Your task to perform on an android device: add a contact Image 0: 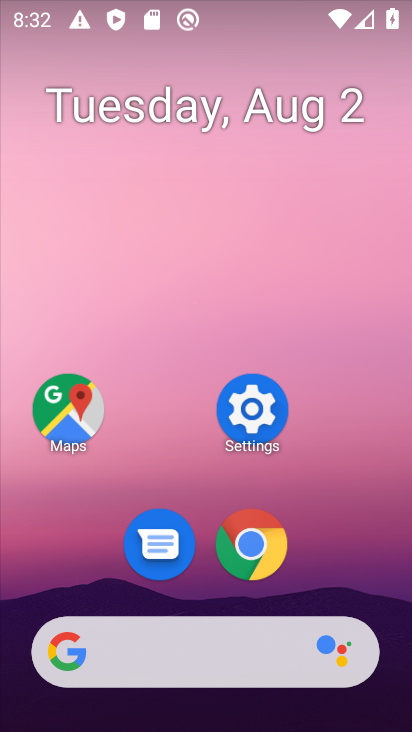
Step 0: press home button
Your task to perform on an android device: add a contact Image 1: 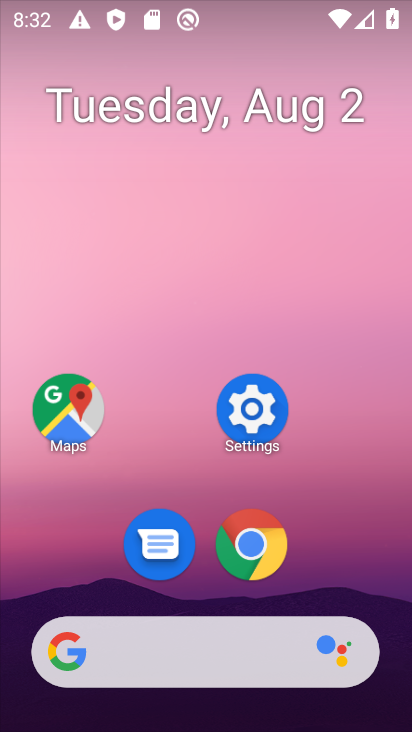
Step 1: drag from (179, 666) to (339, 33)
Your task to perform on an android device: add a contact Image 2: 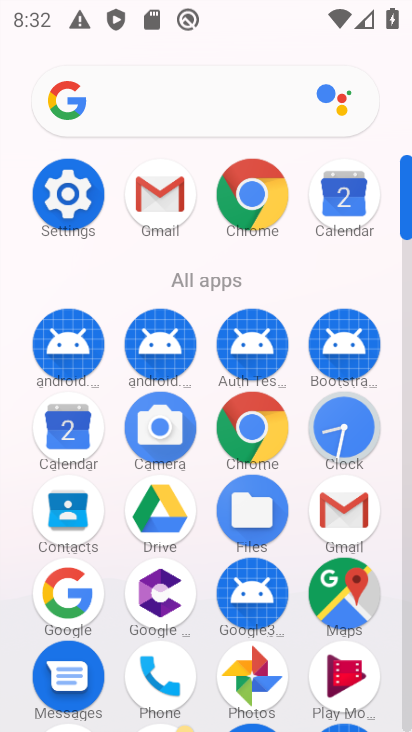
Step 2: drag from (206, 593) to (279, 214)
Your task to perform on an android device: add a contact Image 3: 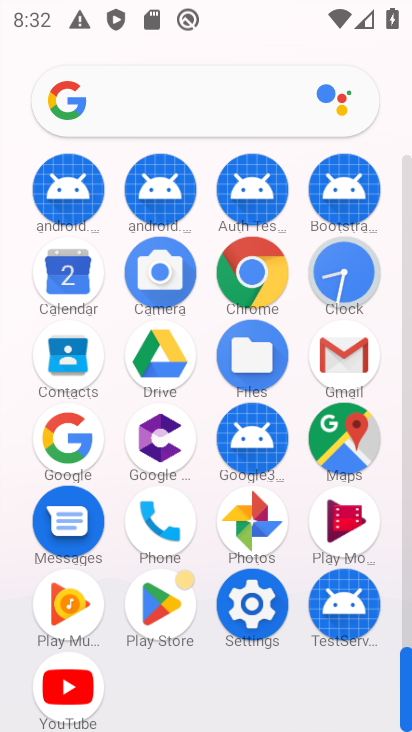
Step 3: click (69, 355)
Your task to perform on an android device: add a contact Image 4: 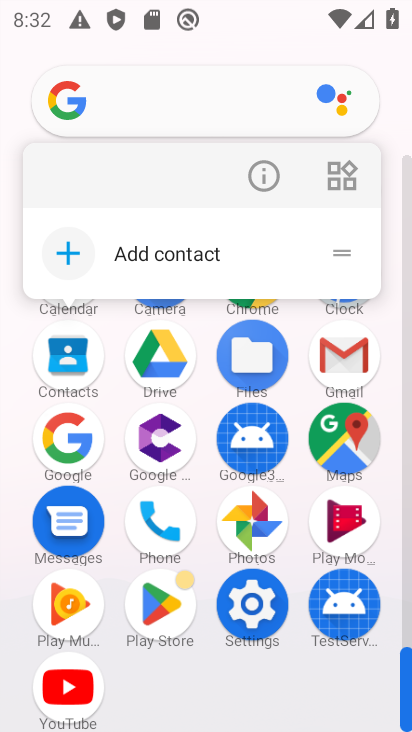
Step 4: click (69, 355)
Your task to perform on an android device: add a contact Image 5: 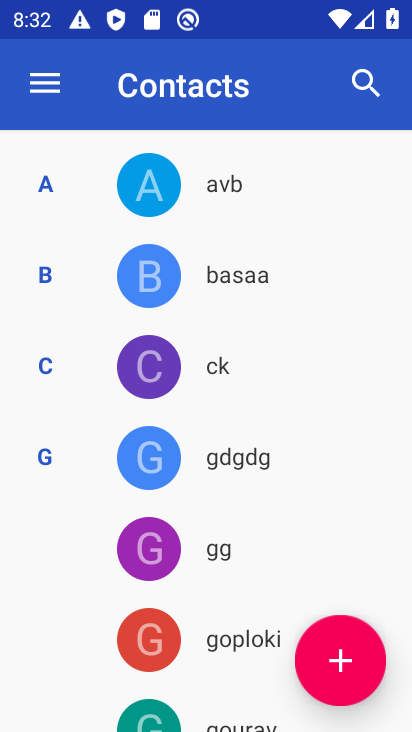
Step 5: click (343, 661)
Your task to perform on an android device: add a contact Image 6: 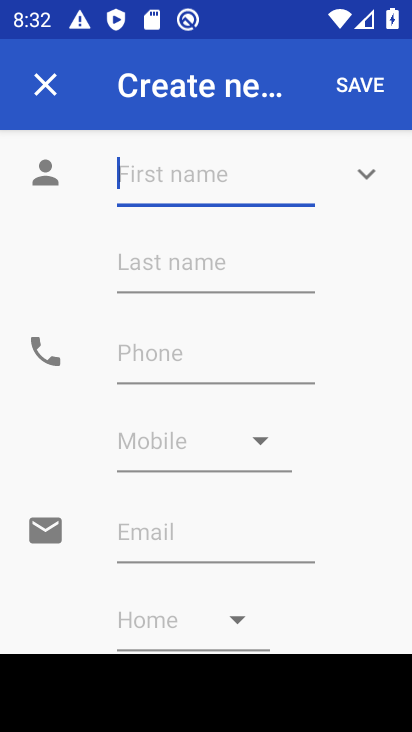
Step 6: type "beutyrhfbf"
Your task to perform on an android device: add a contact Image 7: 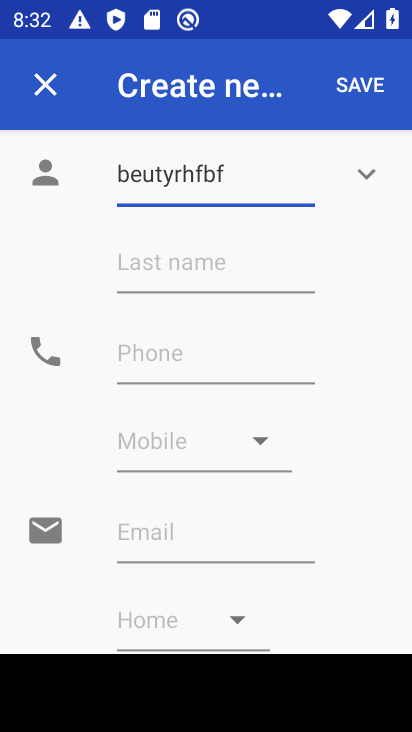
Step 7: click (144, 353)
Your task to perform on an android device: add a contact Image 8: 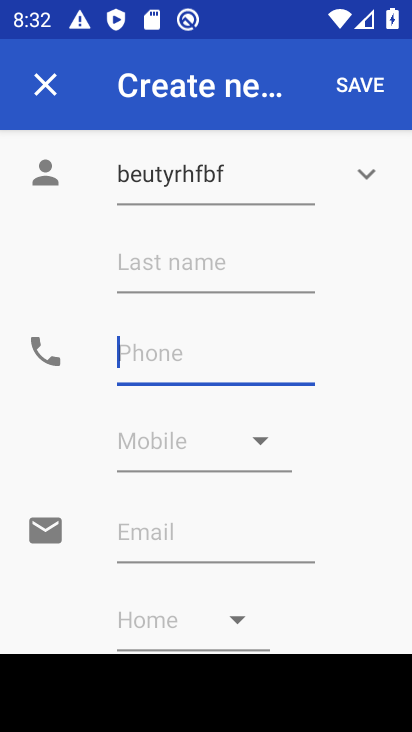
Step 8: type "1938565"
Your task to perform on an android device: add a contact Image 9: 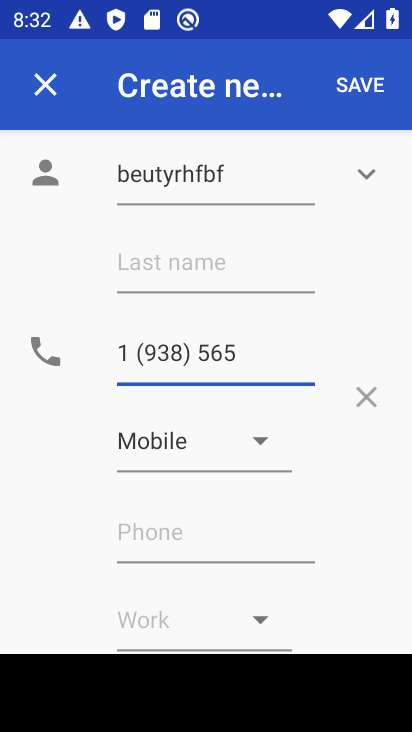
Step 9: click (347, 87)
Your task to perform on an android device: add a contact Image 10: 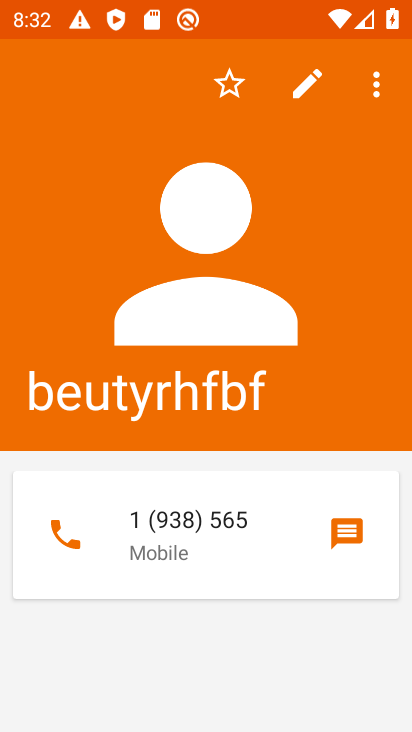
Step 10: task complete